Your task to perform on an android device: Open calendar and show me the first week of next month Image 0: 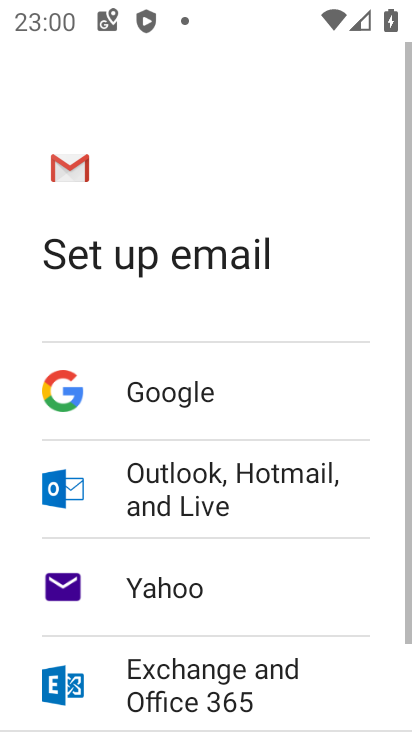
Step 0: press home button
Your task to perform on an android device: Open calendar and show me the first week of next month Image 1: 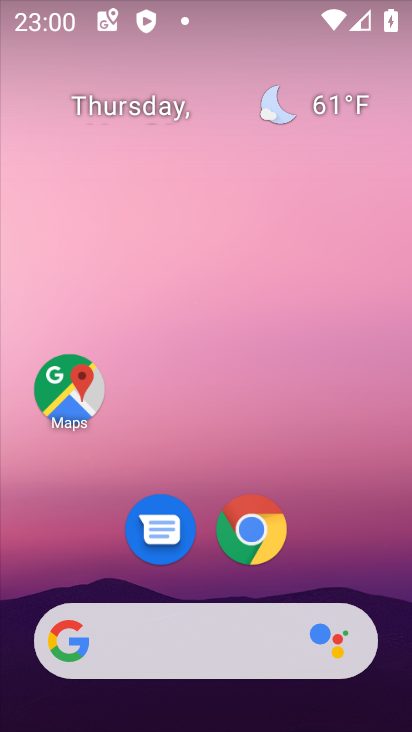
Step 1: drag from (339, 536) to (322, 183)
Your task to perform on an android device: Open calendar and show me the first week of next month Image 2: 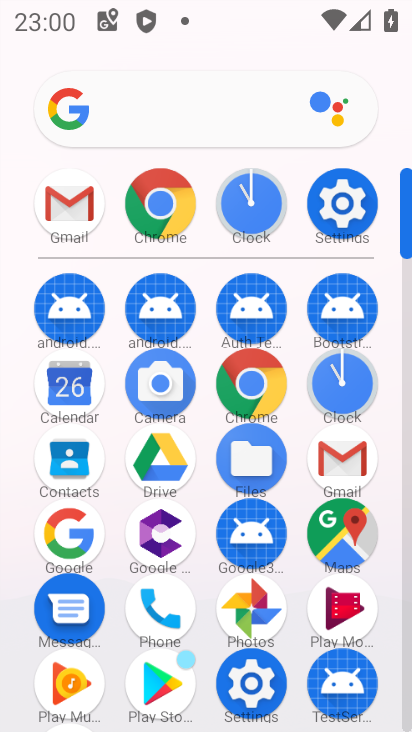
Step 2: click (75, 386)
Your task to perform on an android device: Open calendar and show me the first week of next month Image 3: 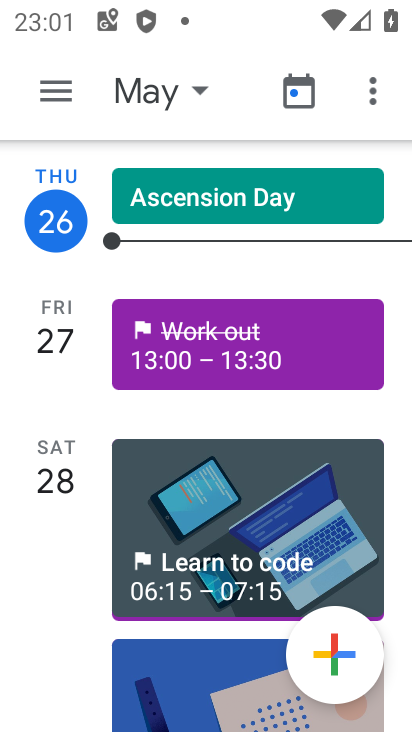
Step 3: task complete